Your task to perform on an android device: turn pop-ups off in chrome Image 0: 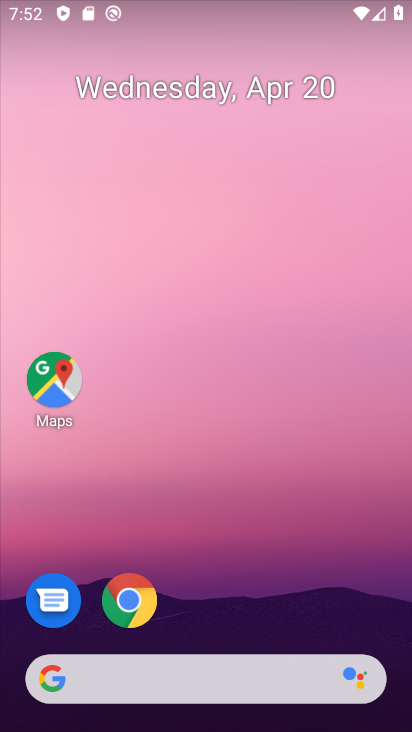
Step 0: click (125, 603)
Your task to perform on an android device: turn pop-ups off in chrome Image 1: 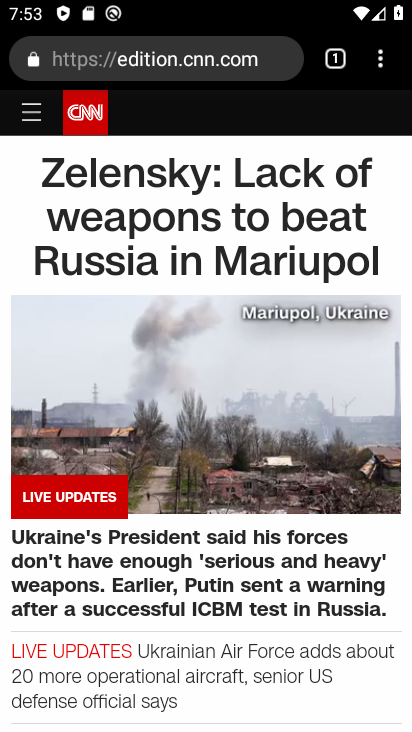
Step 1: click (380, 71)
Your task to perform on an android device: turn pop-ups off in chrome Image 2: 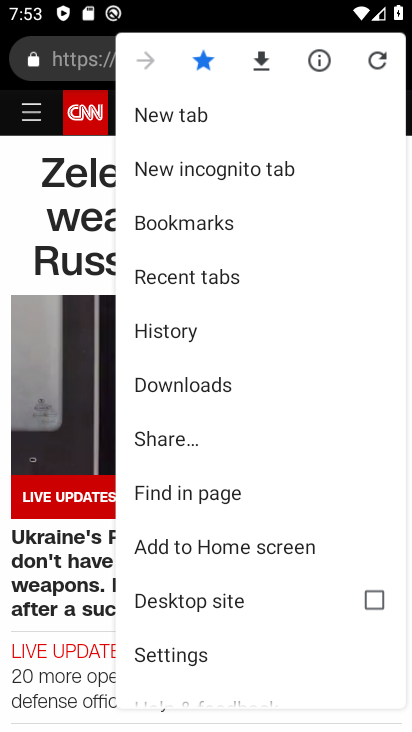
Step 2: click (176, 652)
Your task to perform on an android device: turn pop-ups off in chrome Image 3: 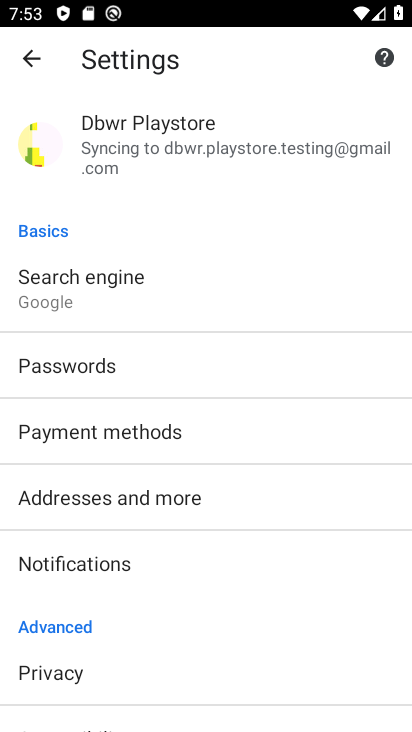
Step 3: drag from (134, 648) to (147, 194)
Your task to perform on an android device: turn pop-ups off in chrome Image 4: 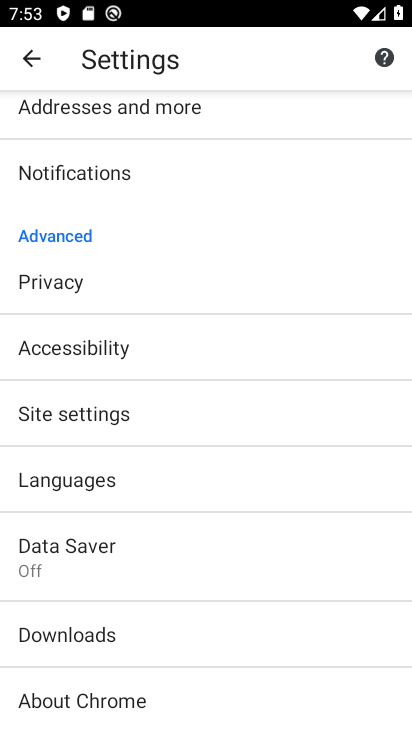
Step 4: click (89, 413)
Your task to perform on an android device: turn pop-ups off in chrome Image 5: 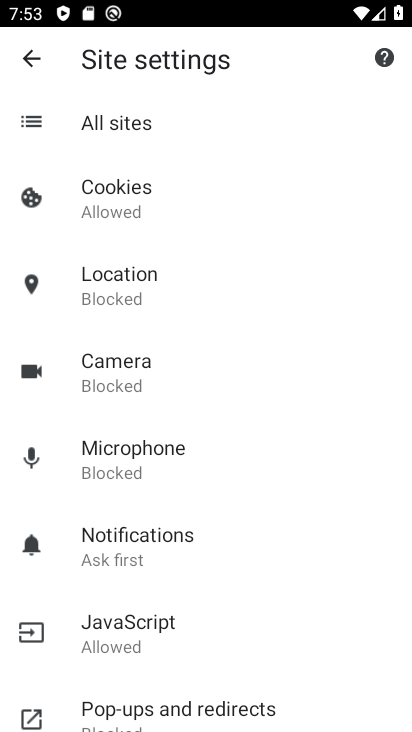
Step 5: drag from (142, 674) to (162, 383)
Your task to perform on an android device: turn pop-ups off in chrome Image 6: 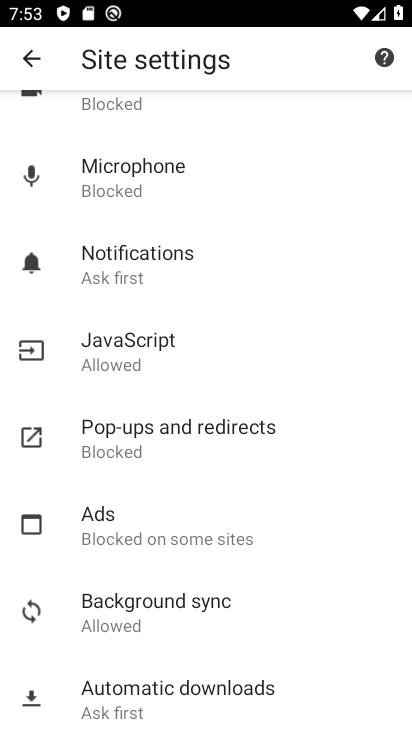
Step 6: click (117, 441)
Your task to perform on an android device: turn pop-ups off in chrome Image 7: 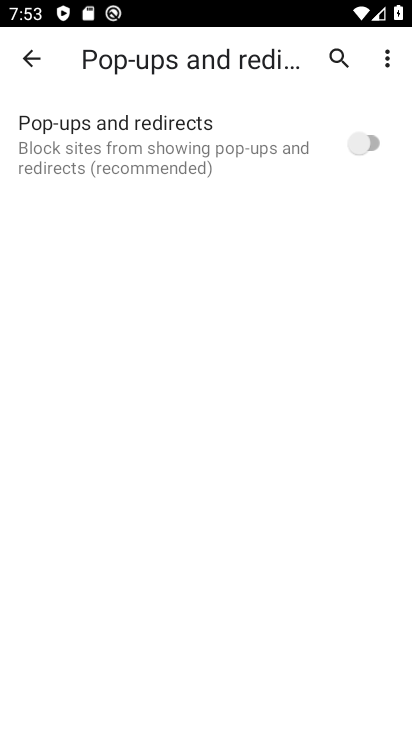
Step 7: task complete